Your task to perform on an android device: turn on data saver in the chrome app Image 0: 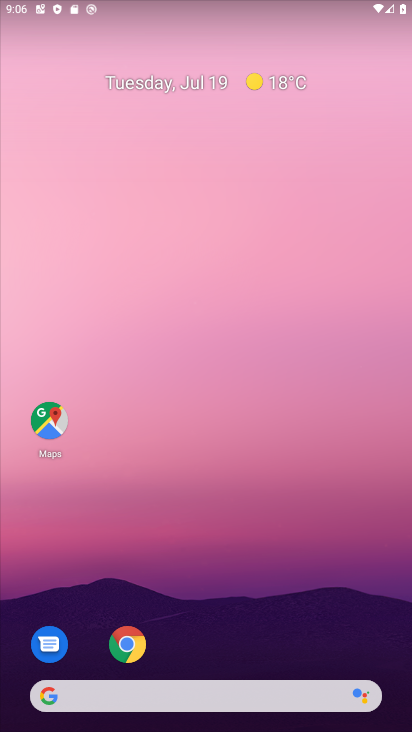
Step 0: drag from (226, 728) to (226, 219)
Your task to perform on an android device: turn on data saver in the chrome app Image 1: 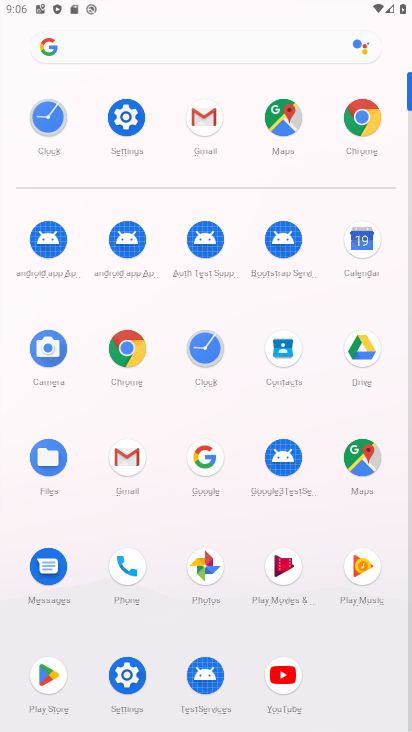
Step 1: click (129, 349)
Your task to perform on an android device: turn on data saver in the chrome app Image 2: 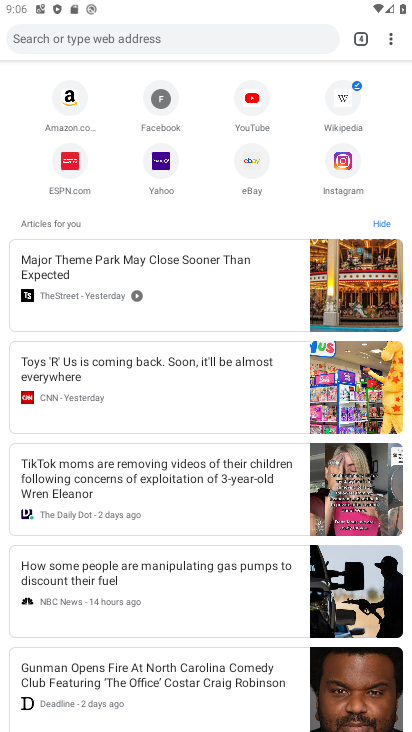
Step 2: click (392, 42)
Your task to perform on an android device: turn on data saver in the chrome app Image 3: 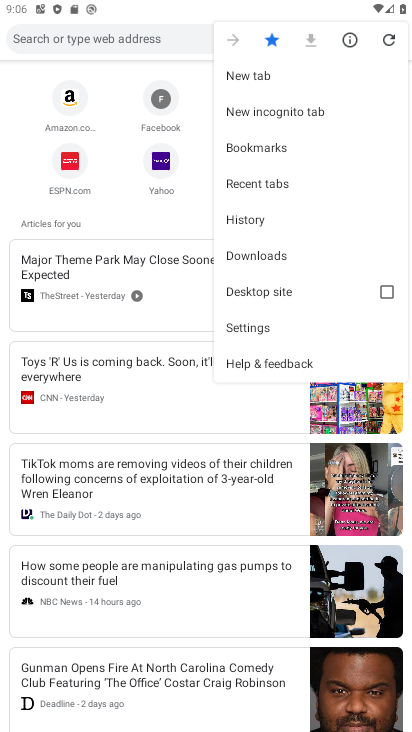
Step 3: click (238, 327)
Your task to perform on an android device: turn on data saver in the chrome app Image 4: 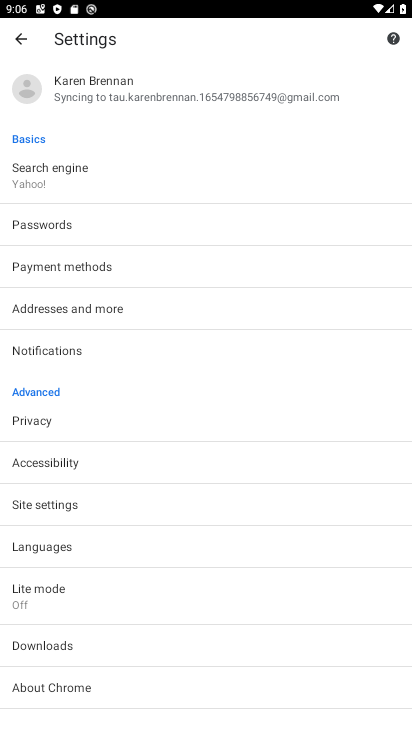
Step 4: click (32, 597)
Your task to perform on an android device: turn on data saver in the chrome app Image 5: 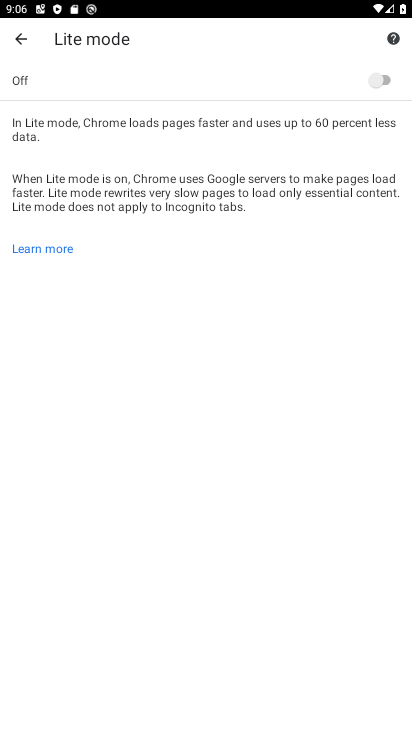
Step 5: click (388, 75)
Your task to perform on an android device: turn on data saver in the chrome app Image 6: 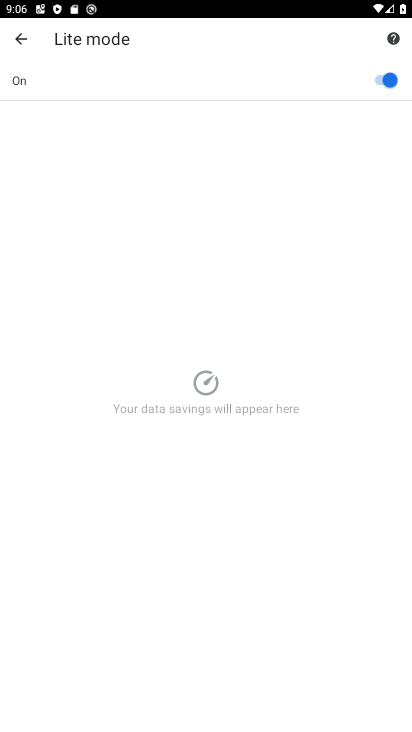
Step 6: task complete